Your task to perform on an android device: open app "Pluto TV - Live TV and Movies" (install if not already installed) and go to login screen Image 0: 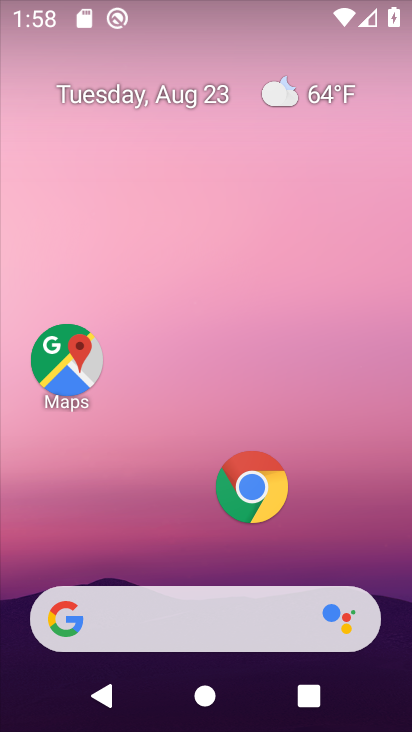
Step 0: drag from (165, 588) to (181, 229)
Your task to perform on an android device: open app "Pluto TV - Live TV and Movies" (install if not already installed) and go to login screen Image 1: 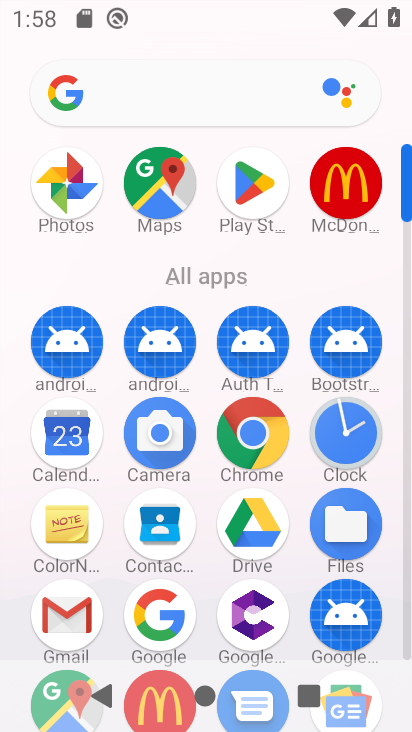
Step 1: click (242, 175)
Your task to perform on an android device: open app "Pluto TV - Live TV and Movies" (install if not already installed) and go to login screen Image 2: 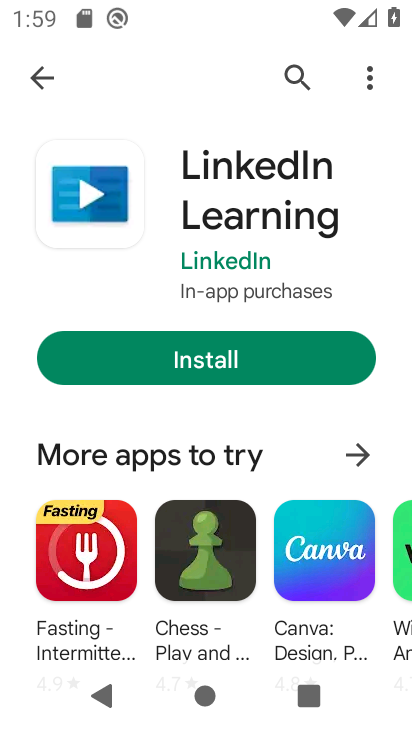
Step 2: click (191, 352)
Your task to perform on an android device: open app "Pluto TV - Live TV and Movies" (install if not already installed) and go to login screen Image 3: 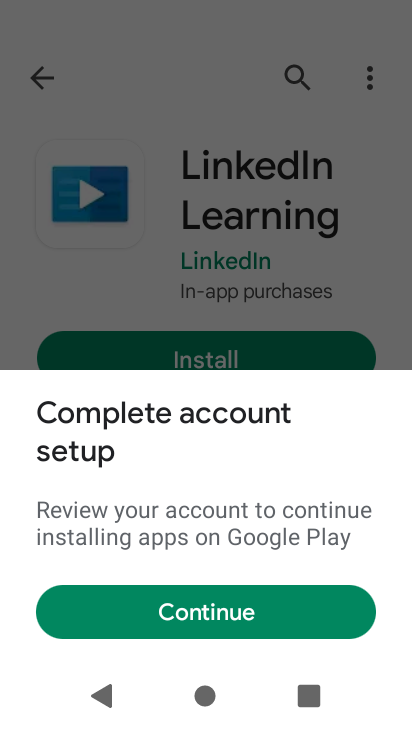
Step 3: task complete